Your task to perform on an android device: Go to ESPN.com Image 0: 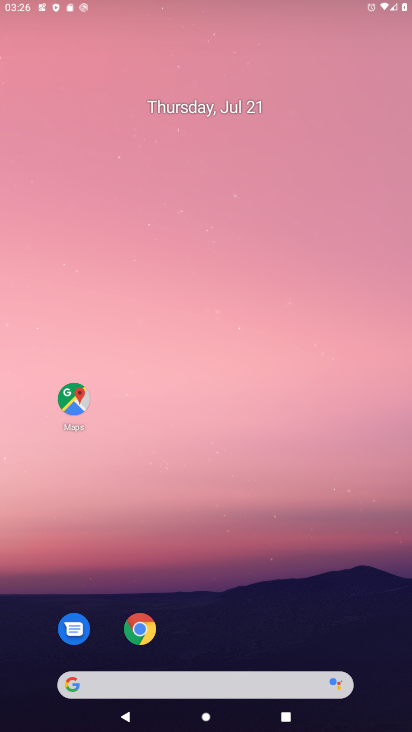
Step 0: press home button
Your task to perform on an android device: Go to ESPN.com Image 1: 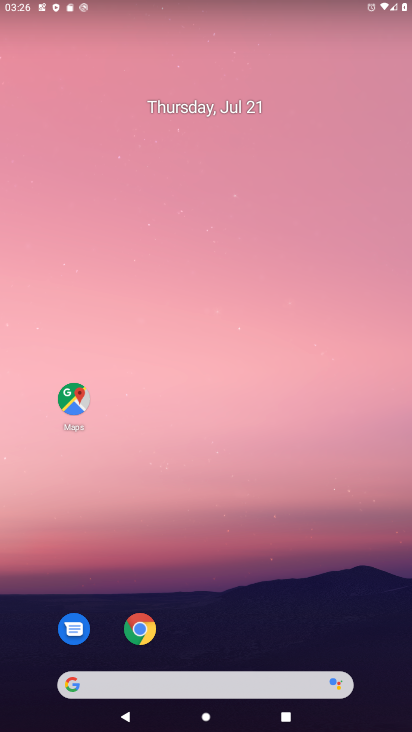
Step 1: drag from (196, 629) to (244, 140)
Your task to perform on an android device: Go to ESPN.com Image 2: 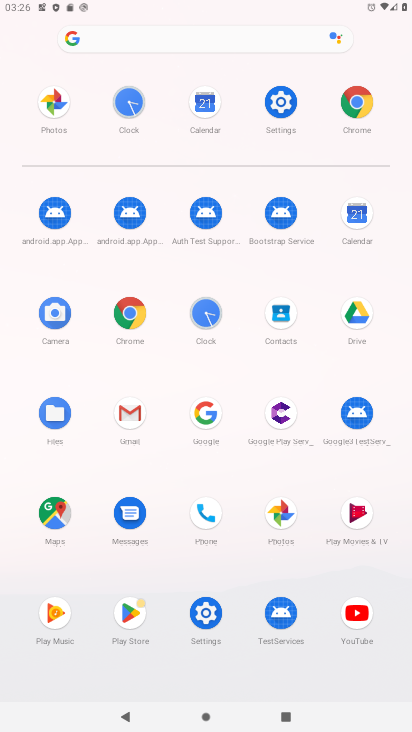
Step 2: click (122, 327)
Your task to perform on an android device: Go to ESPN.com Image 3: 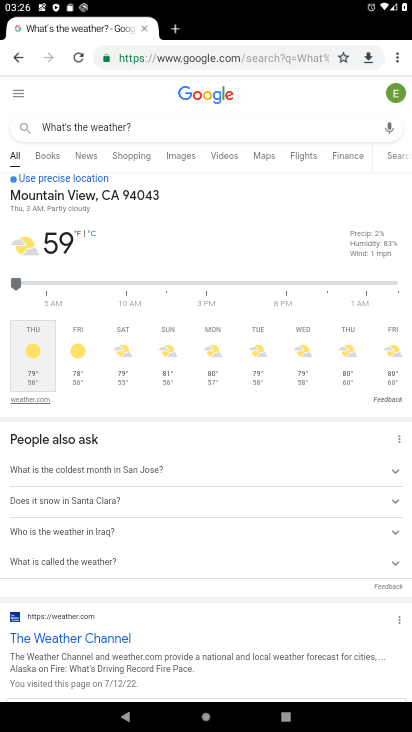
Step 3: click (174, 57)
Your task to perform on an android device: Go to ESPN.com Image 4: 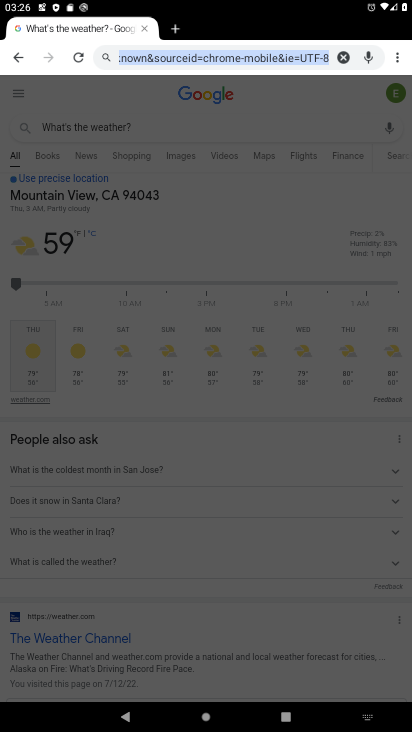
Step 4: type "ESPN.com"
Your task to perform on an android device: Go to ESPN.com Image 5: 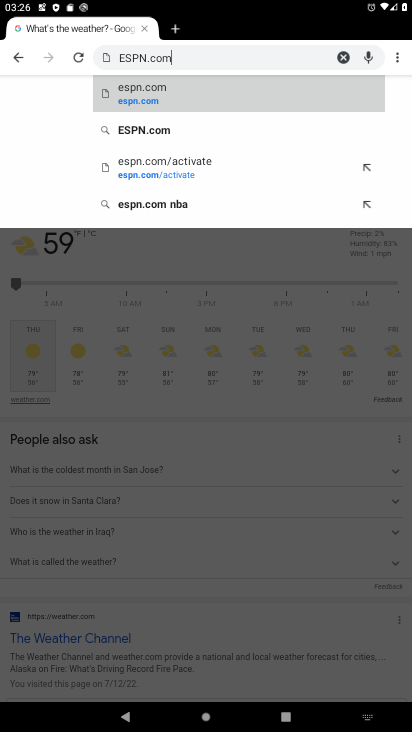
Step 5: type ""
Your task to perform on an android device: Go to ESPN.com Image 6: 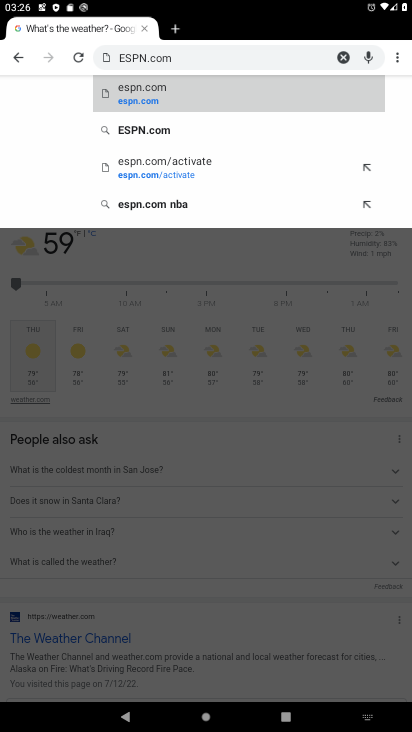
Step 6: click (151, 100)
Your task to perform on an android device: Go to ESPN.com Image 7: 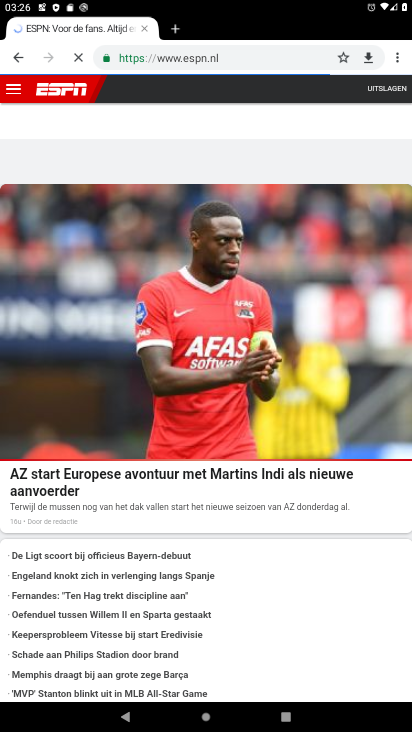
Step 7: task complete